Your task to perform on an android device: change the clock style Image 0: 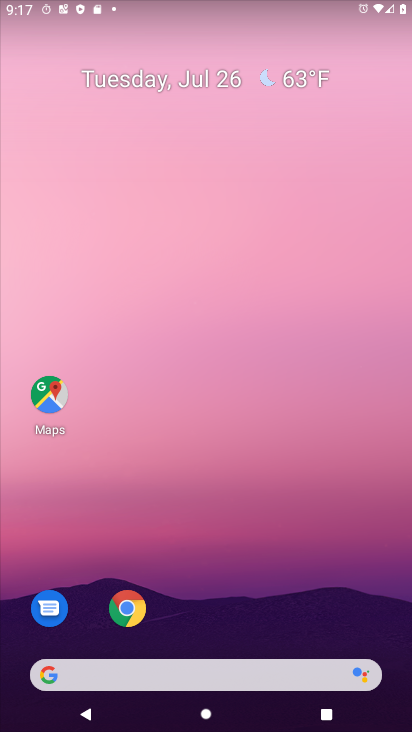
Step 0: drag from (262, 586) to (286, 148)
Your task to perform on an android device: change the clock style Image 1: 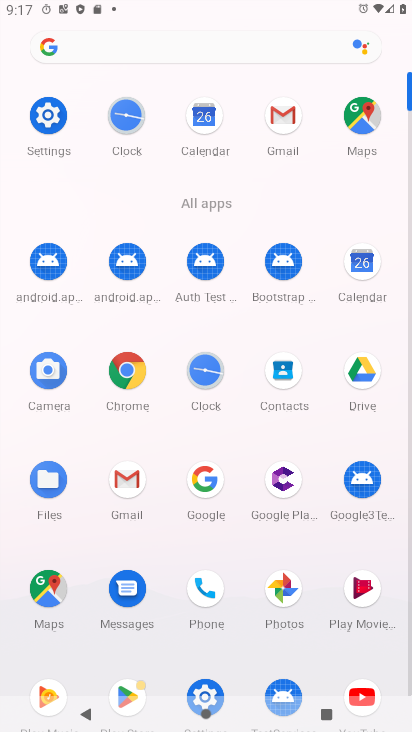
Step 1: click (132, 121)
Your task to perform on an android device: change the clock style Image 2: 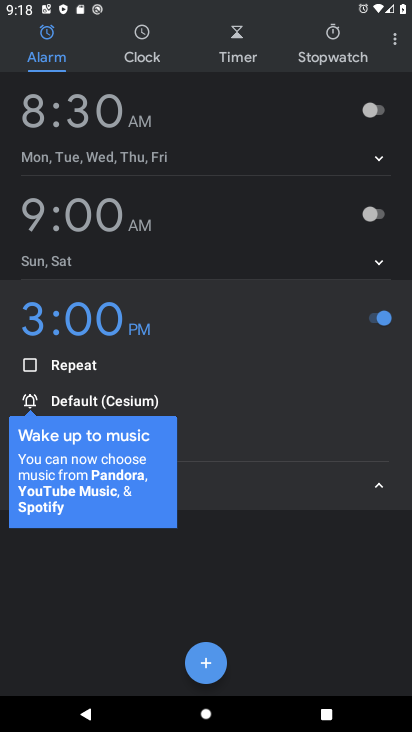
Step 2: click (400, 37)
Your task to perform on an android device: change the clock style Image 3: 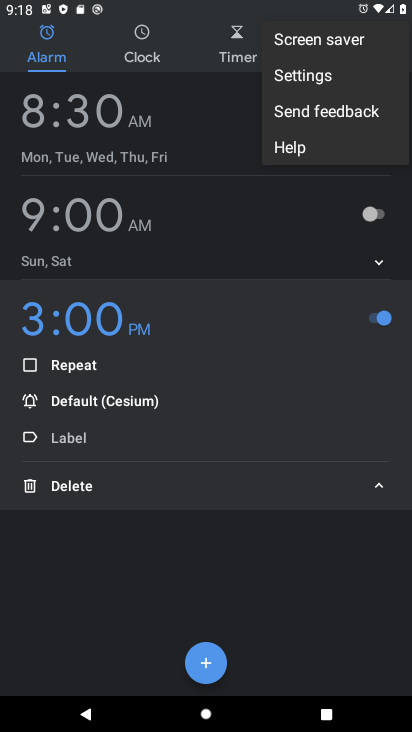
Step 3: click (338, 70)
Your task to perform on an android device: change the clock style Image 4: 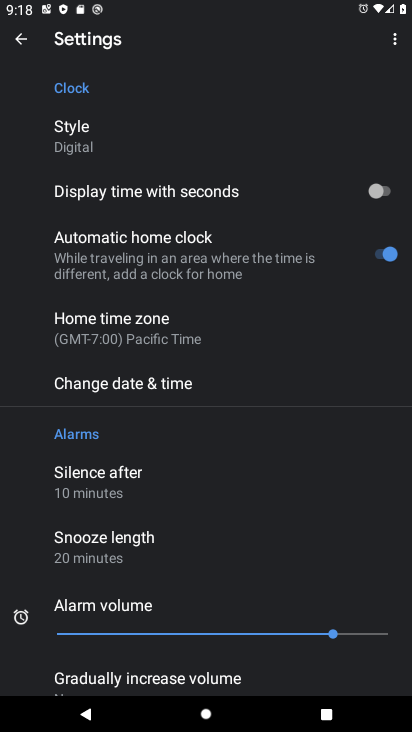
Step 4: click (145, 134)
Your task to perform on an android device: change the clock style Image 5: 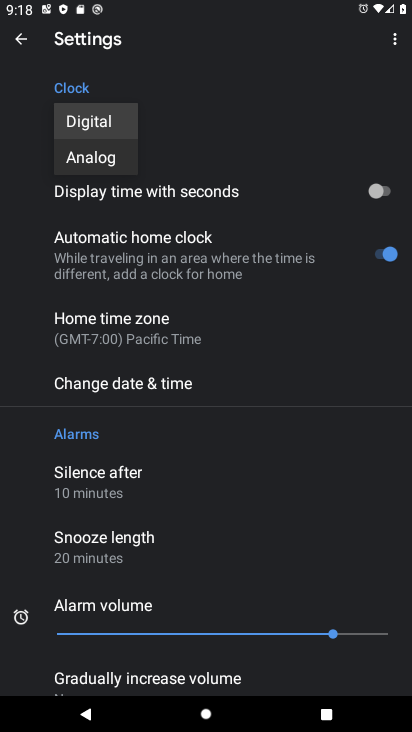
Step 5: click (92, 157)
Your task to perform on an android device: change the clock style Image 6: 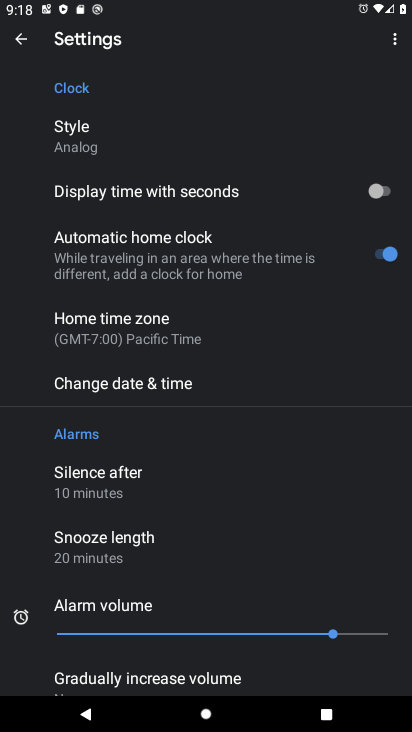
Step 6: task complete